Your task to perform on an android device: Show me recent news Image 0: 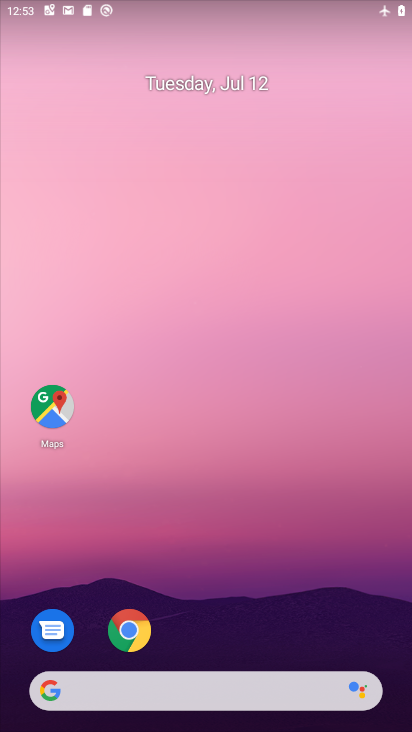
Step 0: drag from (206, 656) to (234, 98)
Your task to perform on an android device: Show me recent news Image 1: 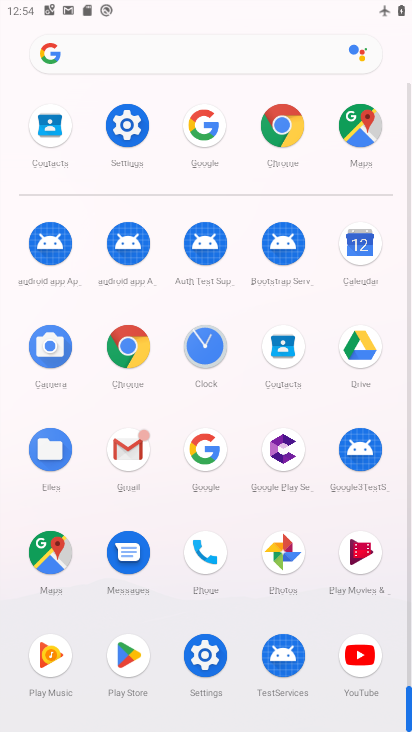
Step 1: drag from (271, 563) to (343, 333)
Your task to perform on an android device: Show me recent news Image 2: 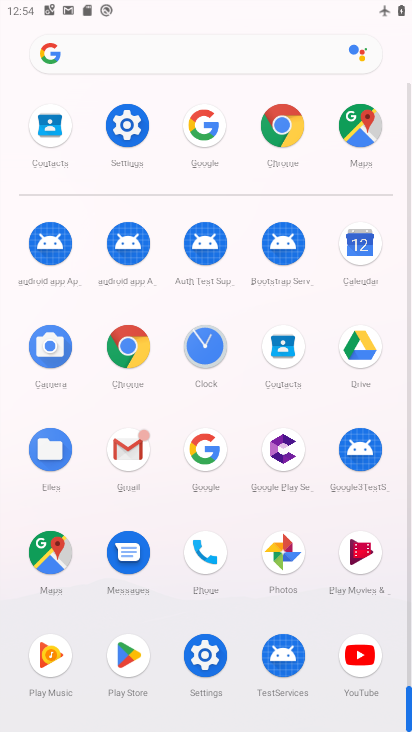
Step 2: click (200, 455)
Your task to perform on an android device: Show me recent news Image 3: 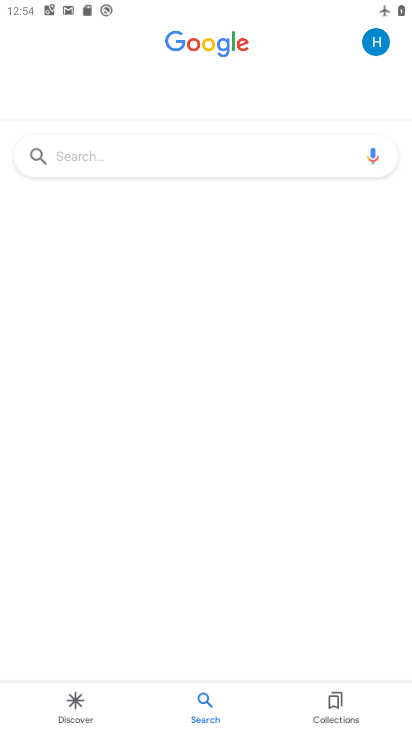
Step 3: click (205, 158)
Your task to perform on an android device: Show me recent news Image 4: 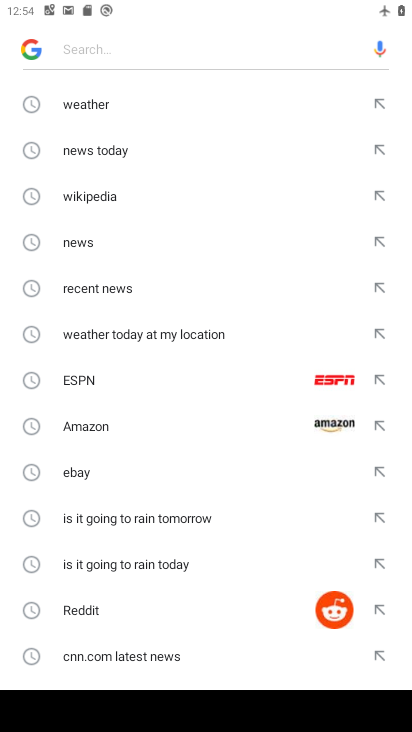
Step 4: click (183, 153)
Your task to perform on an android device: Show me recent news Image 5: 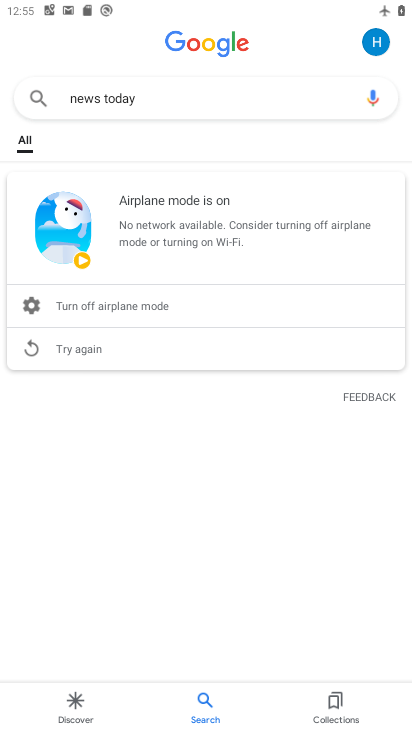
Step 5: task complete